Your task to perform on an android device: check android version Image 0: 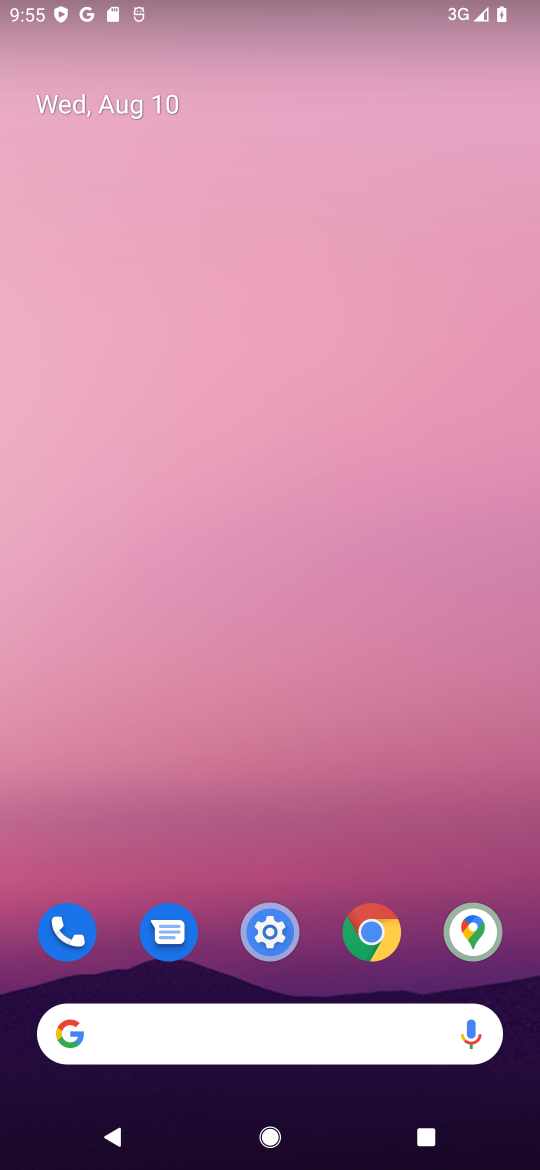
Step 0: click (271, 930)
Your task to perform on an android device: check android version Image 1: 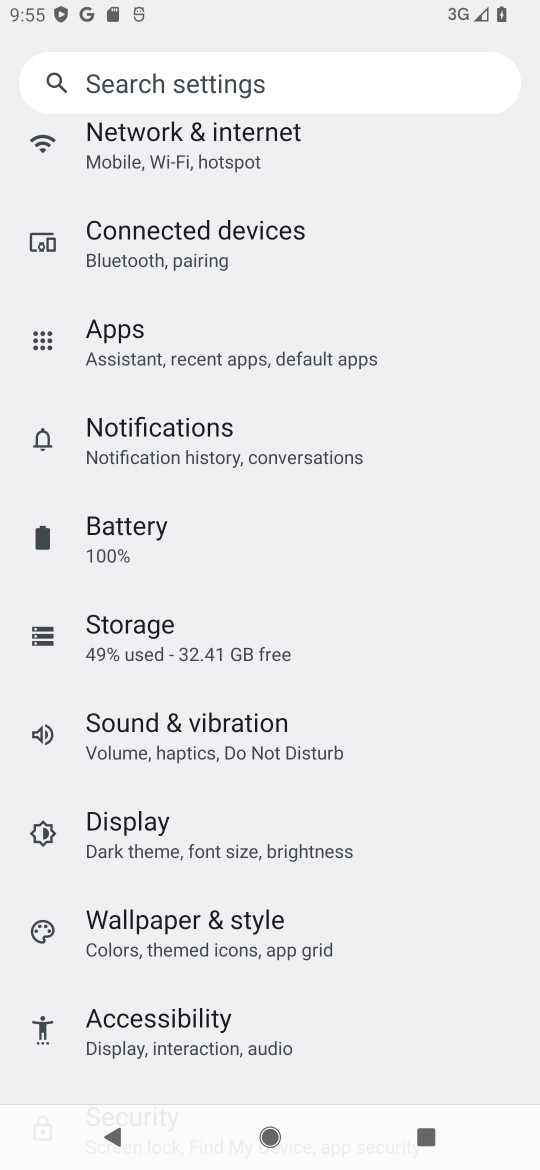
Step 1: drag from (426, 922) to (380, 197)
Your task to perform on an android device: check android version Image 2: 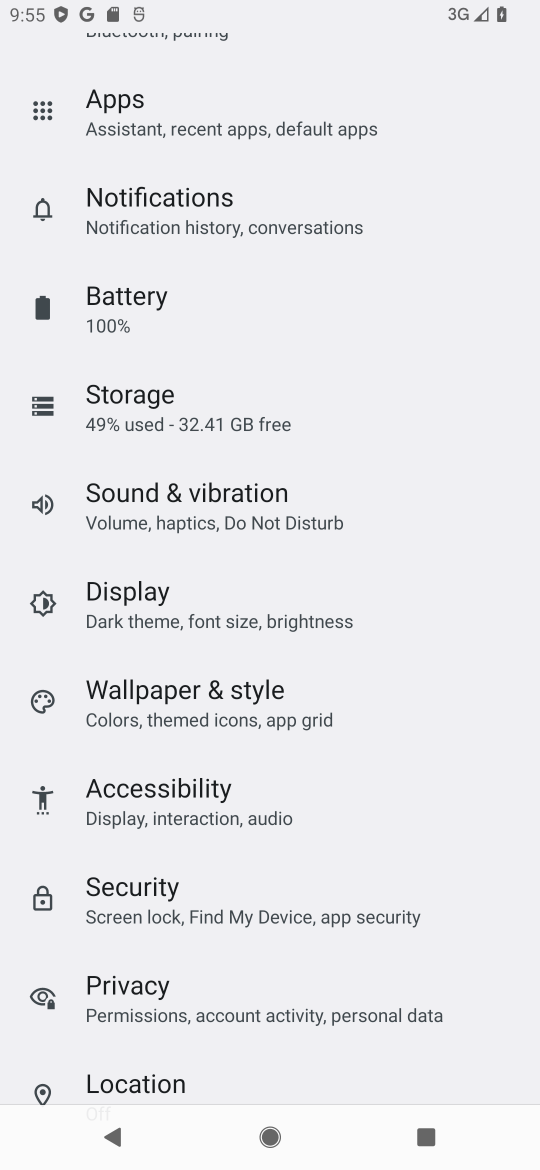
Step 2: drag from (278, 1028) to (277, 323)
Your task to perform on an android device: check android version Image 3: 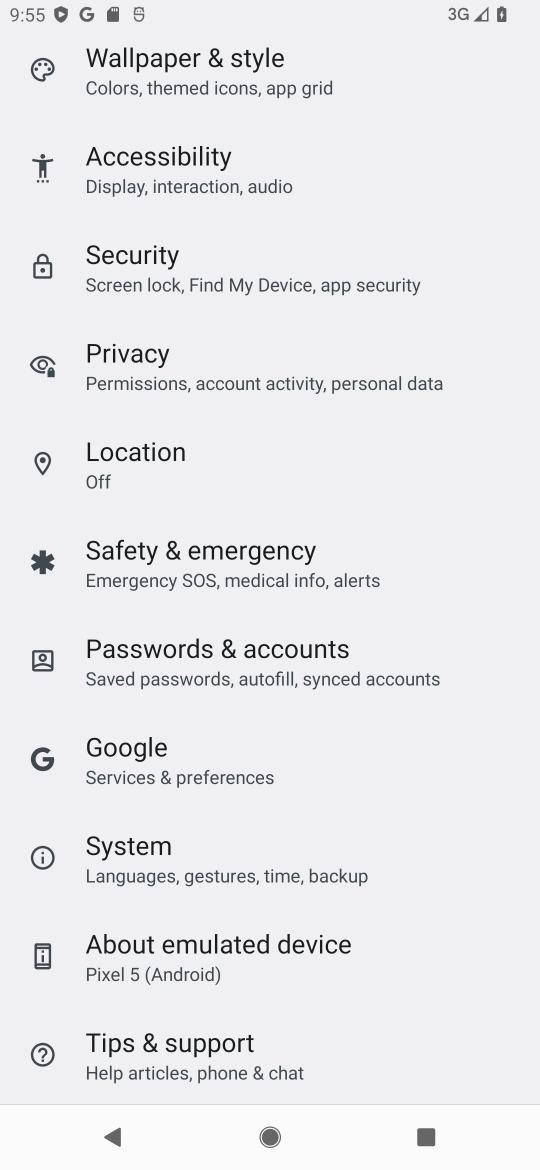
Step 3: drag from (317, 984) to (302, 407)
Your task to perform on an android device: check android version Image 4: 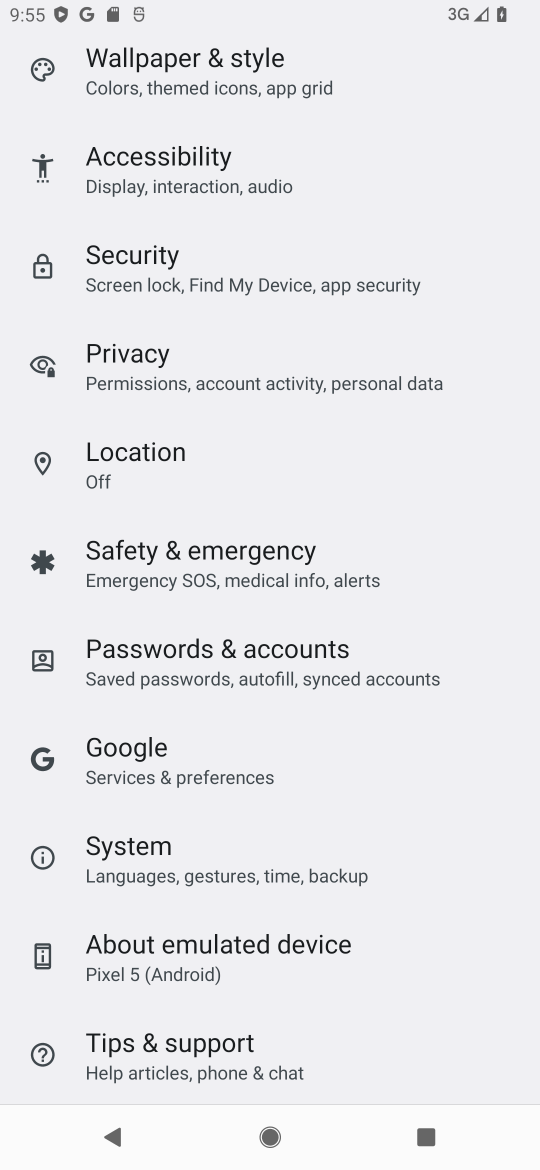
Step 4: click (242, 943)
Your task to perform on an android device: check android version Image 5: 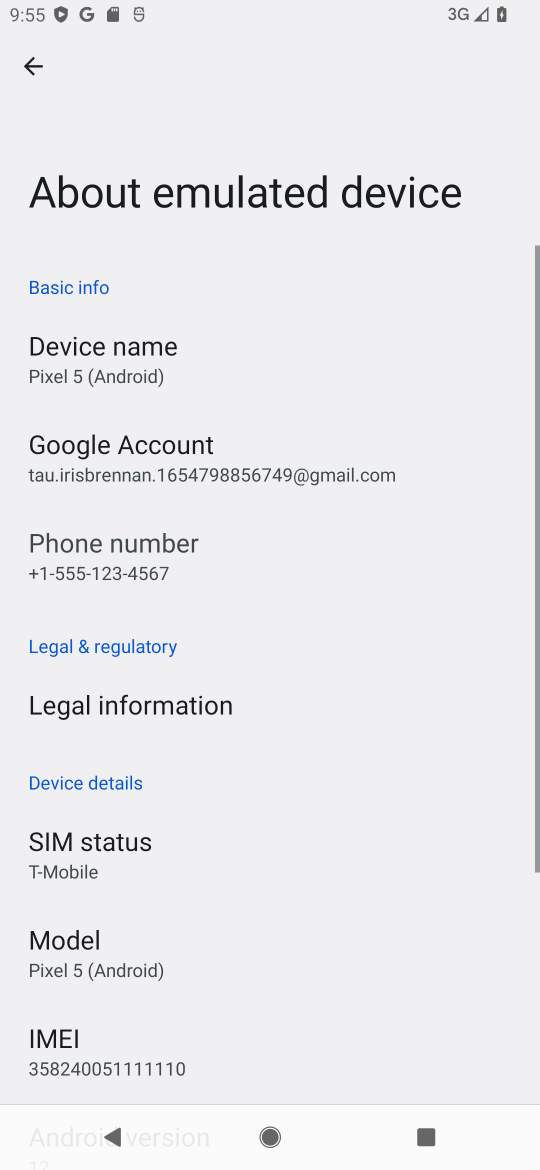
Step 5: task complete